Your task to perform on an android device: Open Yahoo.com Image 0: 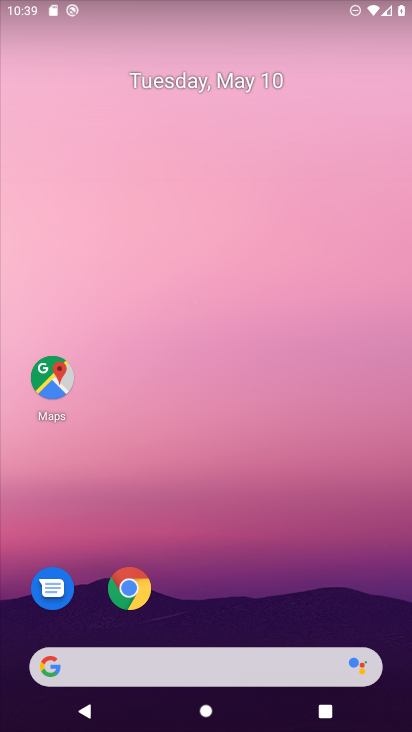
Step 0: click (221, 621)
Your task to perform on an android device: Open Yahoo.com Image 1: 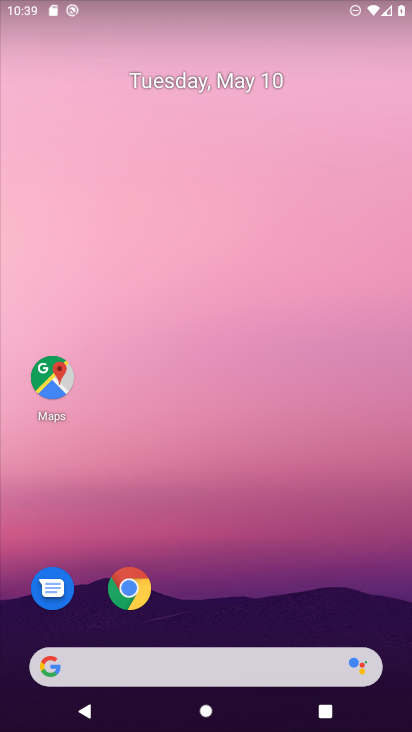
Step 1: click (150, 585)
Your task to perform on an android device: Open Yahoo.com Image 2: 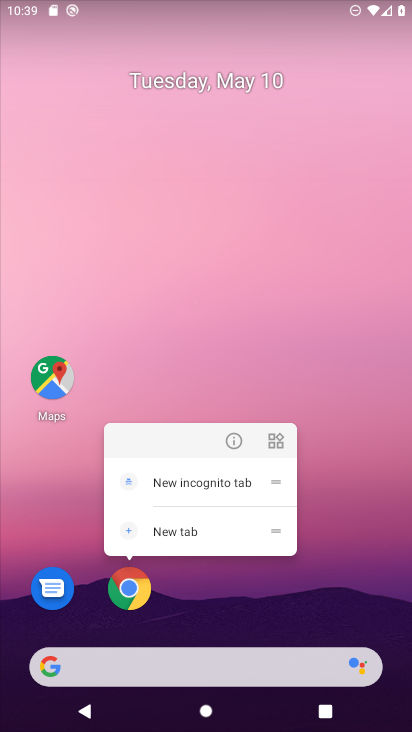
Step 2: click (151, 586)
Your task to perform on an android device: Open Yahoo.com Image 3: 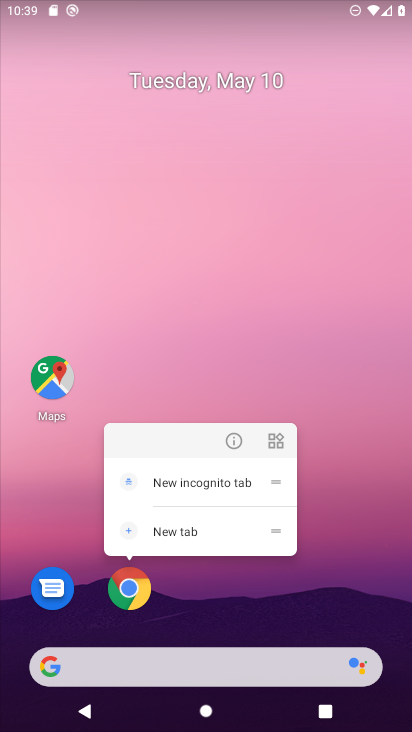
Step 3: click (145, 583)
Your task to perform on an android device: Open Yahoo.com Image 4: 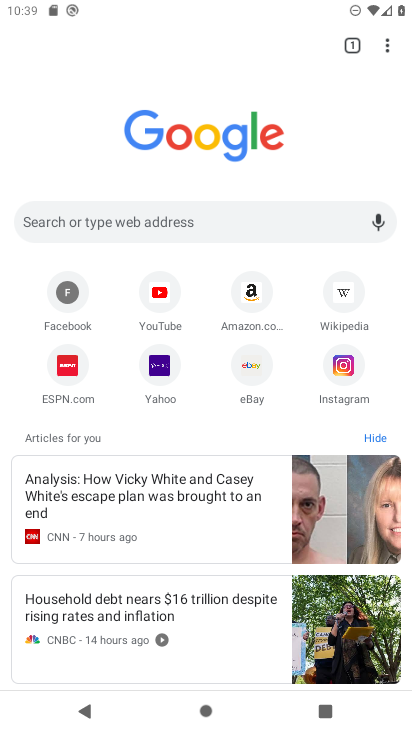
Step 4: click (164, 370)
Your task to perform on an android device: Open Yahoo.com Image 5: 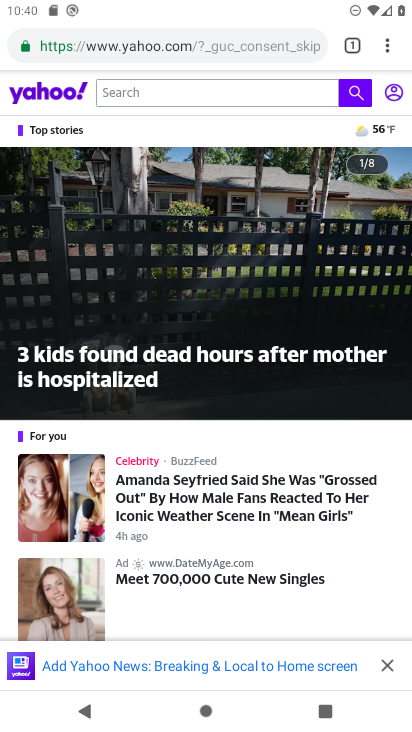
Step 5: task complete